Your task to perform on an android device: check storage Image 0: 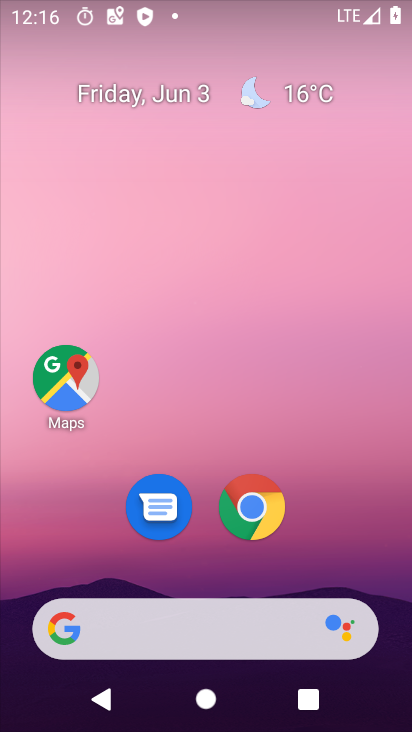
Step 0: drag from (397, 650) to (261, 33)
Your task to perform on an android device: check storage Image 1: 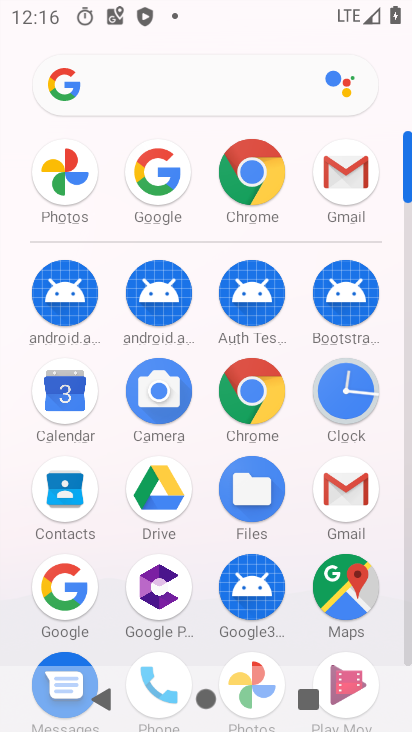
Step 1: drag from (190, 626) to (194, 100)
Your task to perform on an android device: check storage Image 2: 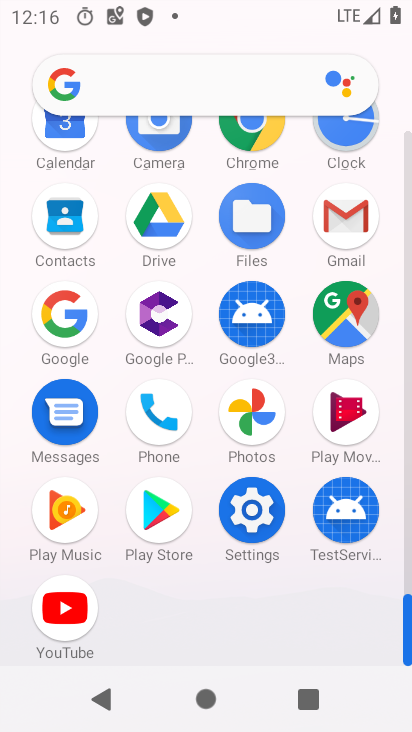
Step 2: click (246, 536)
Your task to perform on an android device: check storage Image 3: 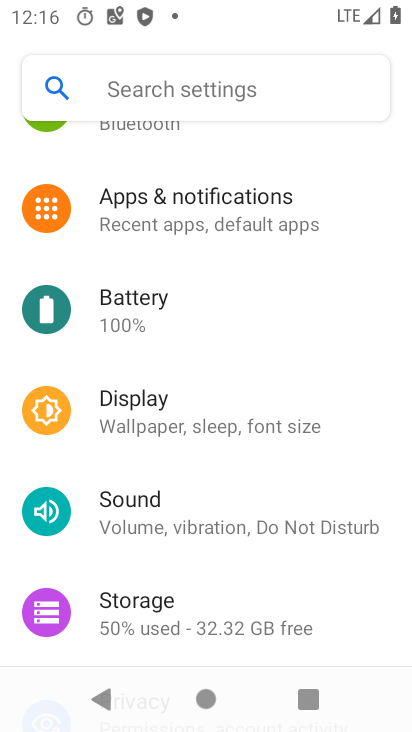
Step 3: click (170, 602)
Your task to perform on an android device: check storage Image 4: 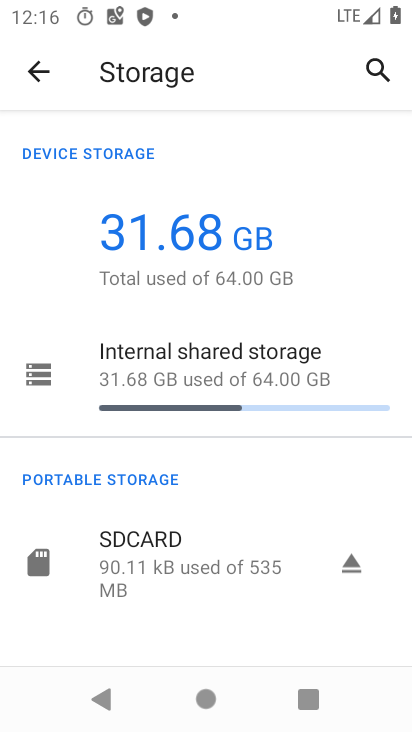
Step 4: click (171, 352)
Your task to perform on an android device: check storage Image 5: 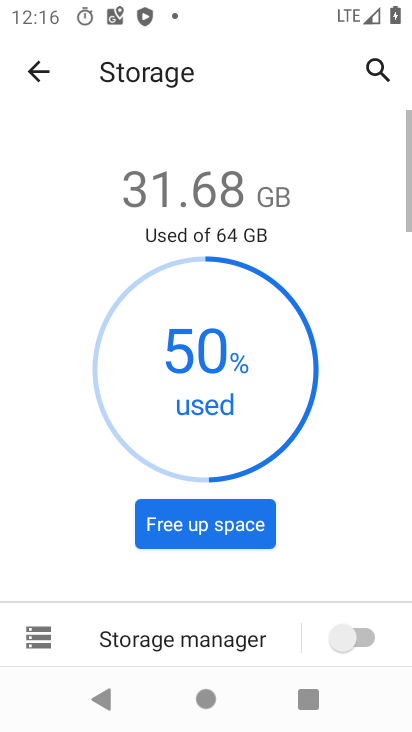
Step 5: task complete